Your task to perform on an android device: Go to eBay Image 0: 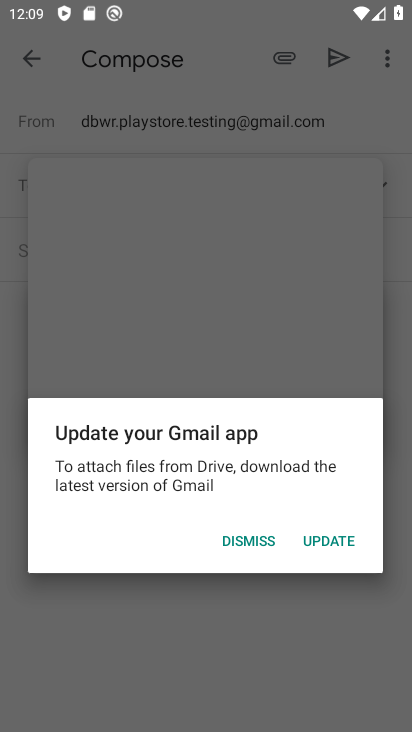
Step 0: press home button
Your task to perform on an android device: Go to eBay Image 1: 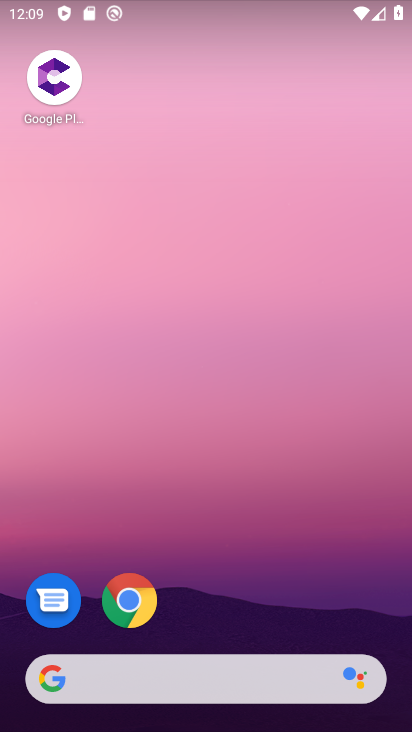
Step 1: click (132, 595)
Your task to perform on an android device: Go to eBay Image 2: 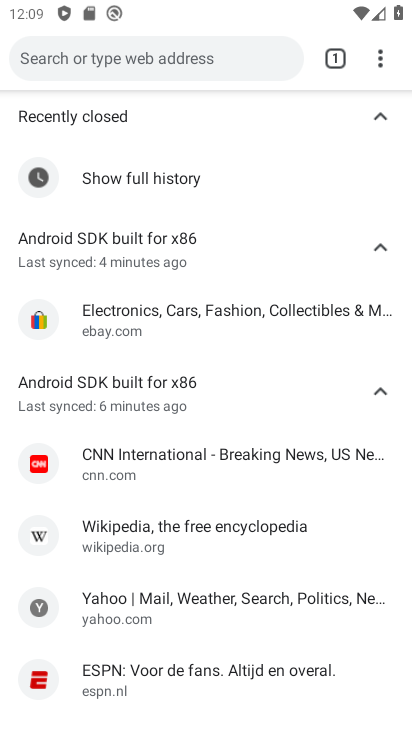
Step 2: click (154, 69)
Your task to perform on an android device: Go to eBay Image 3: 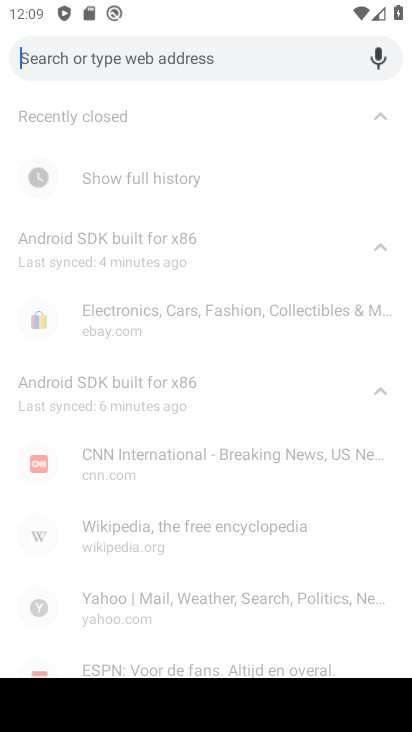
Step 3: type "ebay"
Your task to perform on an android device: Go to eBay Image 4: 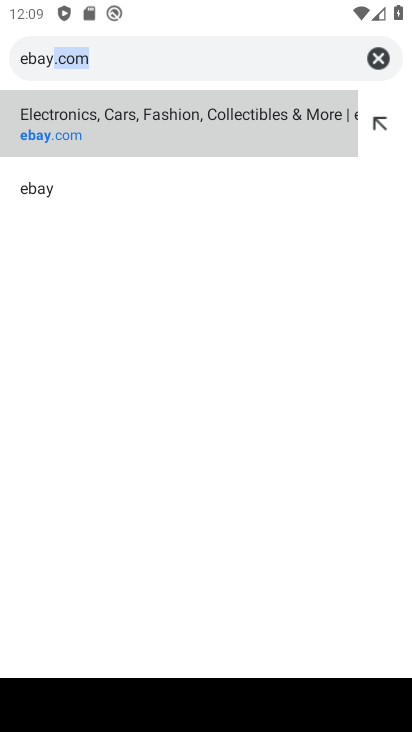
Step 4: click (50, 118)
Your task to perform on an android device: Go to eBay Image 5: 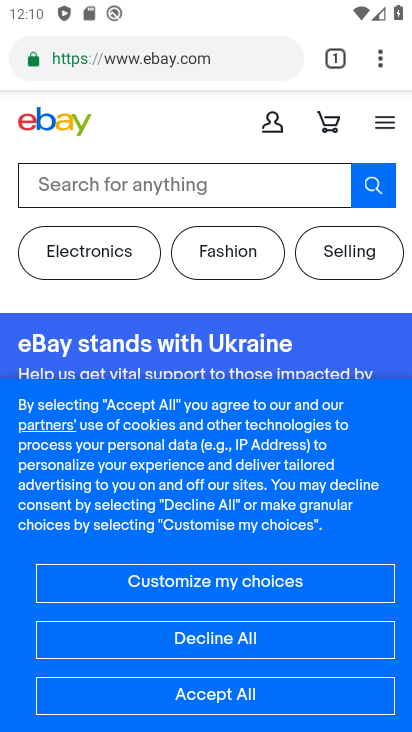
Step 5: task complete